Your task to perform on an android device: Search for pizza restaurants on Maps Image 0: 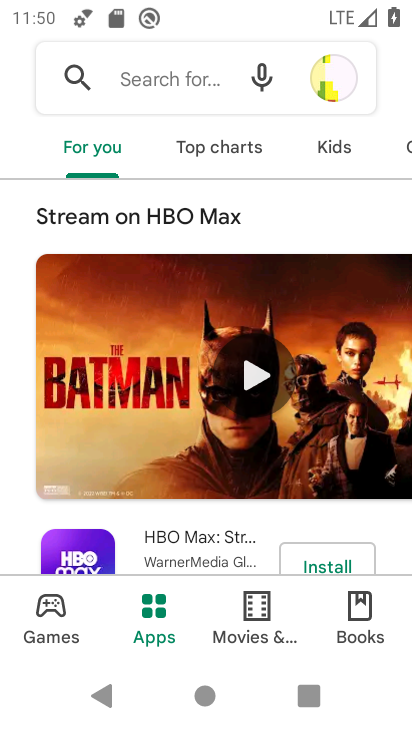
Step 0: press home button
Your task to perform on an android device: Search for pizza restaurants on Maps Image 1: 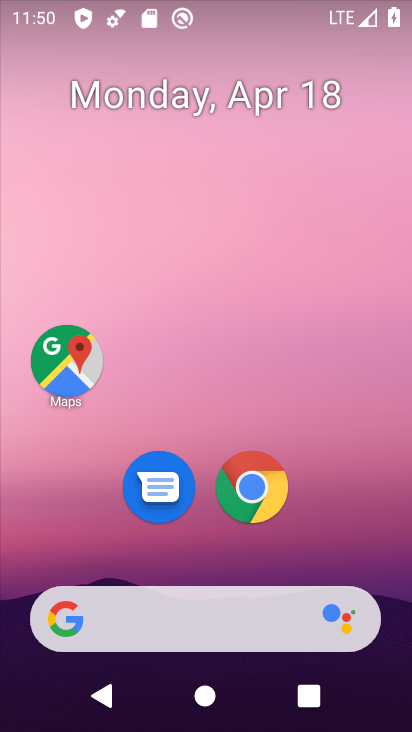
Step 1: click (65, 361)
Your task to perform on an android device: Search for pizza restaurants on Maps Image 2: 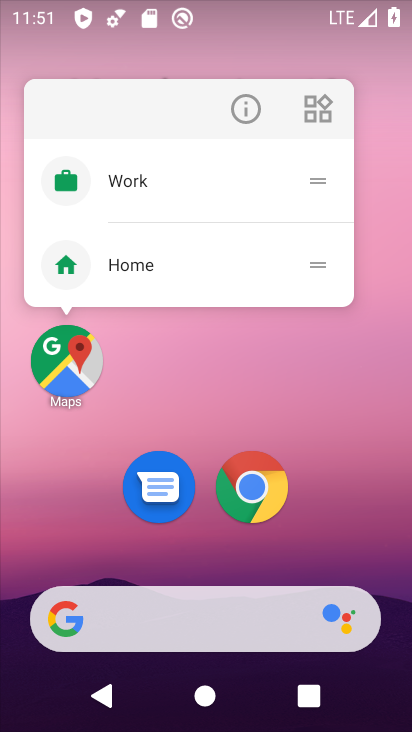
Step 2: click (64, 367)
Your task to perform on an android device: Search for pizza restaurants on Maps Image 3: 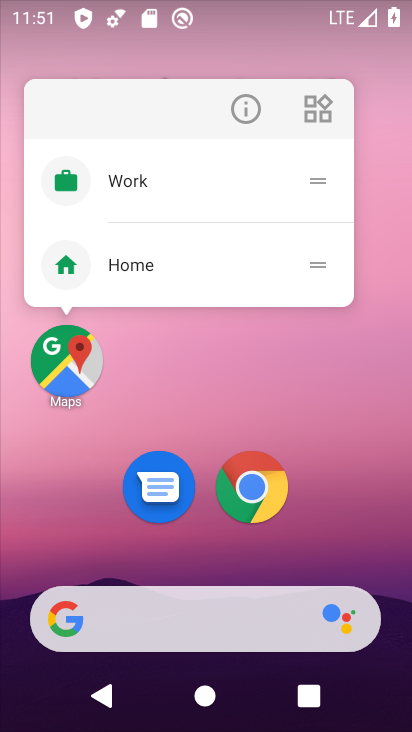
Step 3: click (62, 369)
Your task to perform on an android device: Search for pizza restaurants on Maps Image 4: 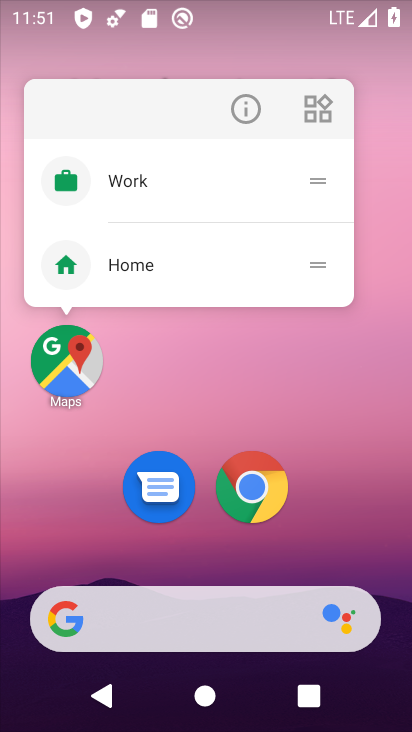
Step 4: click (88, 331)
Your task to perform on an android device: Search for pizza restaurants on Maps Image 5: 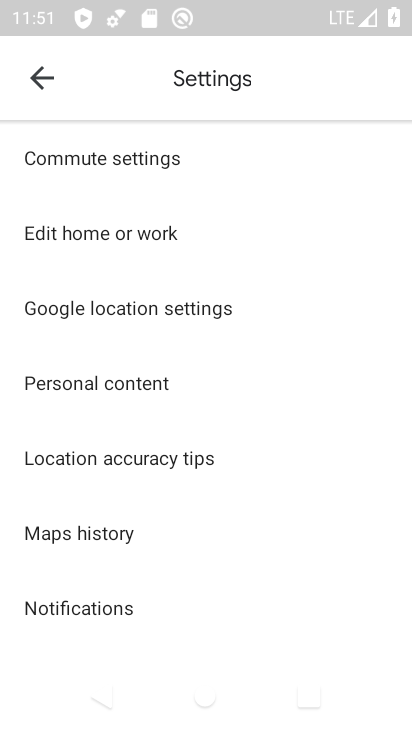
Step 5: click (31, 85)
Your task to perform on an android device: Search for pizza restaurants on Maps Image 6: 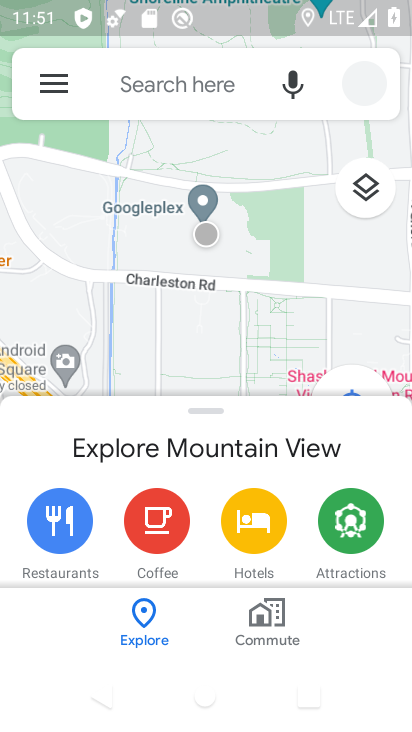
Step 6: click (43, 83)
Your task to perform on an android device: Search for pizza restaurants on Maps Image 7: 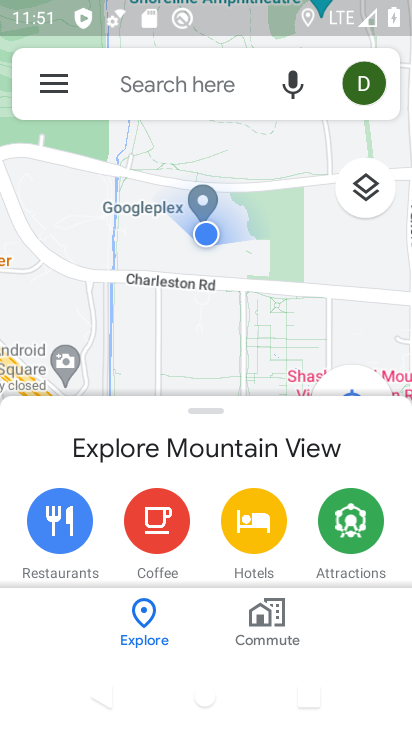
Step 7: click (168, 81)
Your task to perform on an android device: Search for pizza restaurants on Maps Image 8: 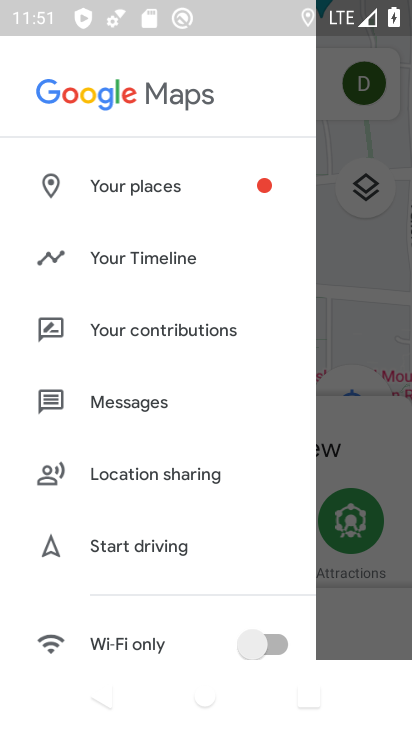
Step 8: click (337, 132)
Your task to perform on an android device: Search for pizza restaurants on Maps Image 9: 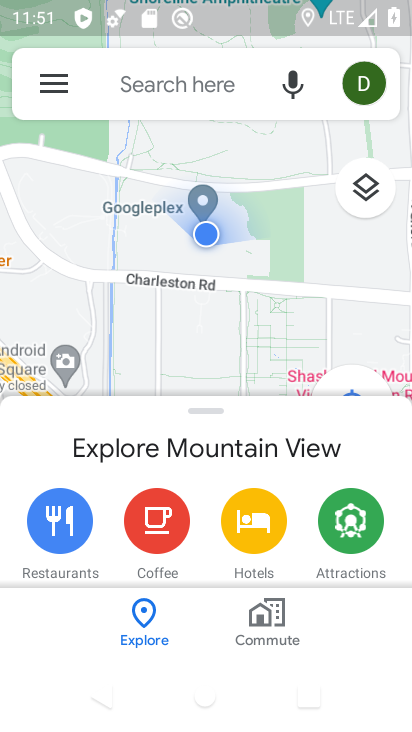
Step 9: click (202, 86)
Your task to perform on an android device: Search for pizza restaurants on Maps Image 10: 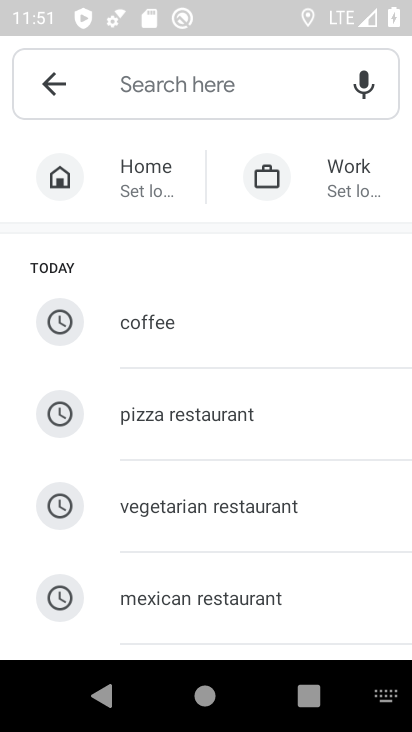
Step 10: click (192, 416)
Your task to perform on an android device: Search for pizza restaurants on Maps Image 11: 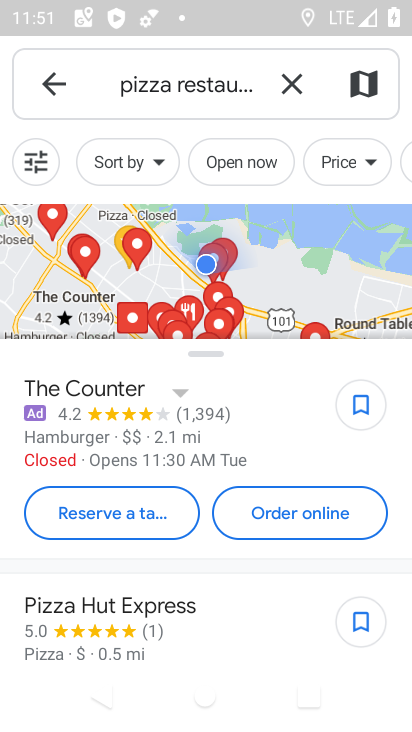
Step 11: task complete